Your task to perform on an android device: Go to eBay Image 0: 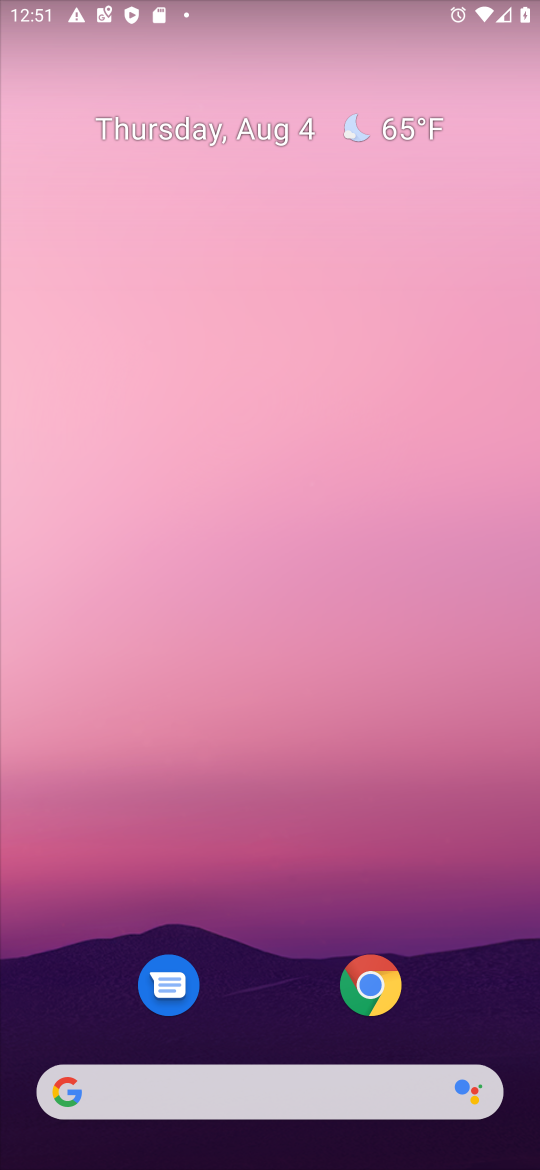
Step 0: click (373, 970)
Your task to perform on an android device: Go to eBay Image 1: 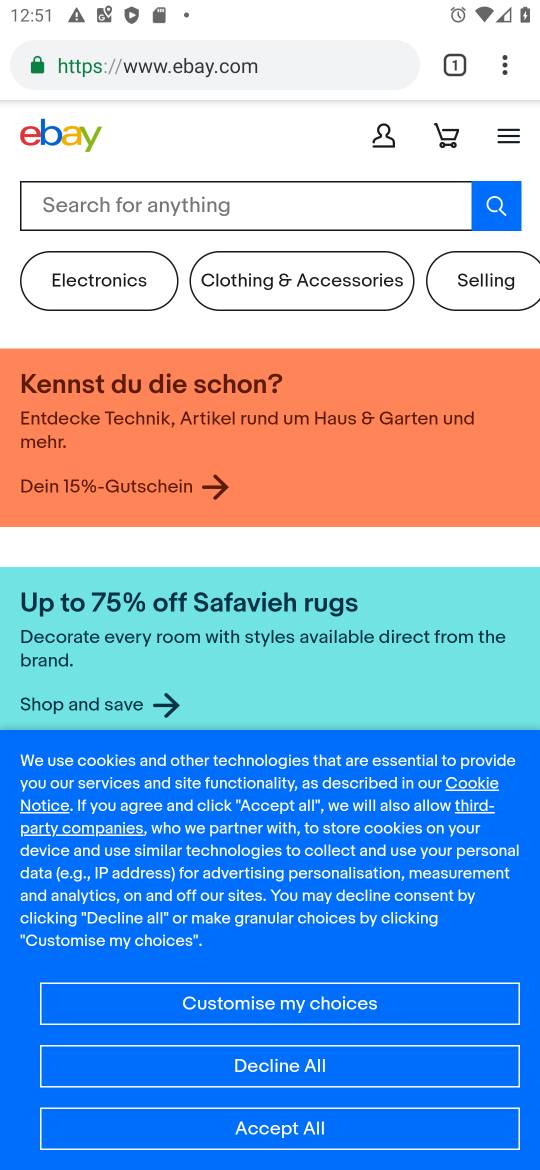
Step 1: task complete